Your task to perform on an android device: open app "NewsBreak: Local News & Alerts" Image 0: 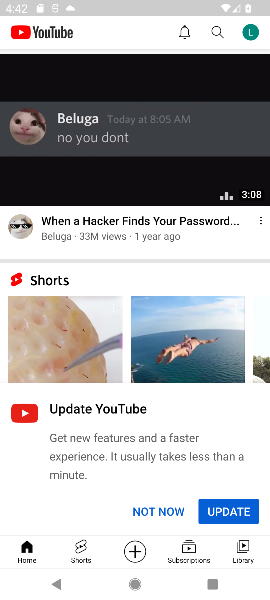
Step 0: press home button
Your task to perform on an android device: open app "NewsBreak: Local News & Alerts" Image 1: 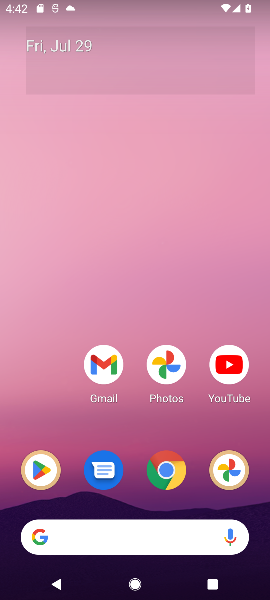
Step 1: click (32, 484)
Your task to perform on an android device: open app "NewsBreak: Local News & Alerts" Image 2: 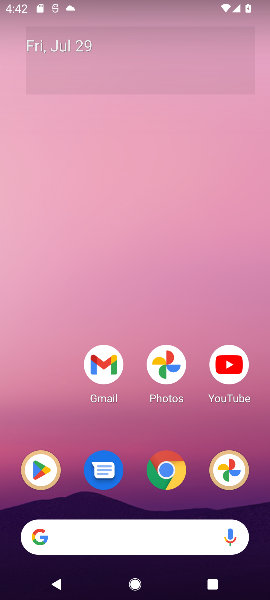
Step 2: click (32, 484)
Your task to perform on an android device: open app "NewsBreak: Local News & Alerts" Image 3: 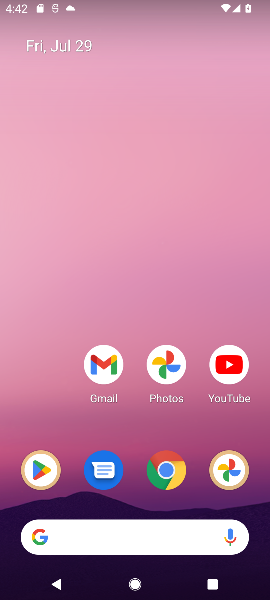
Step 3: click (32, 484)
Your task to perform on an android device: open app "NewsBreak: Local News & Alerts" Image 4: 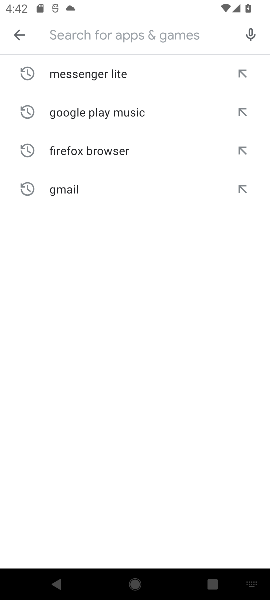
Step 4: click (194, 35)
Your task to perform on an android device: open app "NewsBreak: Local News & Alerts" Image 5: 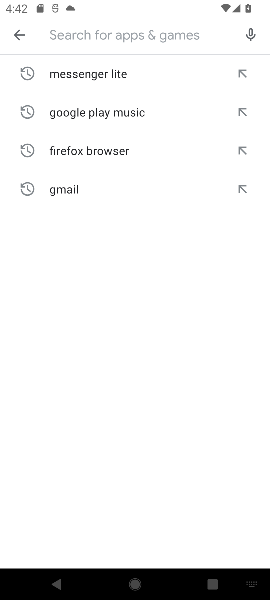
Step 5: type "NewsBreak: Local News & Alerts"
Your task to perform on an android device: open app "NewsBreak: Local News & Alerts" Image 6: 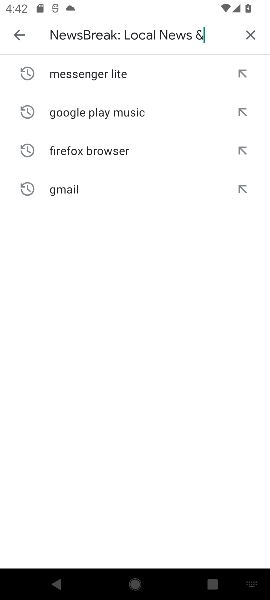
Step 6: type ""
Your task to perform on an android device: open app "NewsBreak: Local News & Alerts" Image 7: 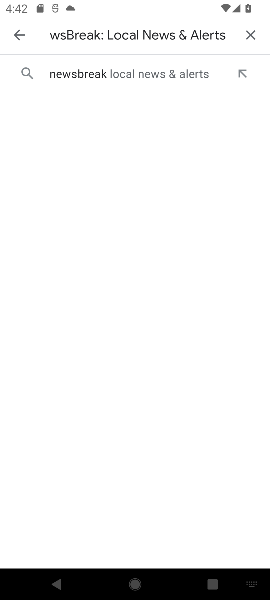
Step 7: click (142, 81)
Your task to perform on an android device: open app "NewsBreak: Local News & Alerts" Image 8: 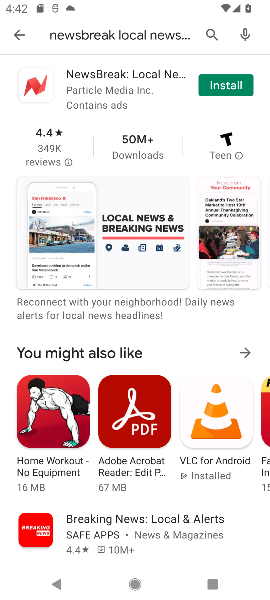
Step 8: task complete